Your task to perform on an android device: Check the weather Image 0: 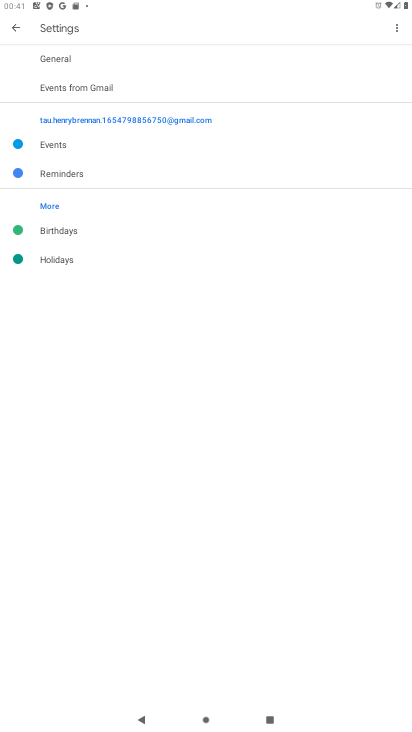
Step 0: press home button
Your task to perform on an android device: Check the weather Image 1: 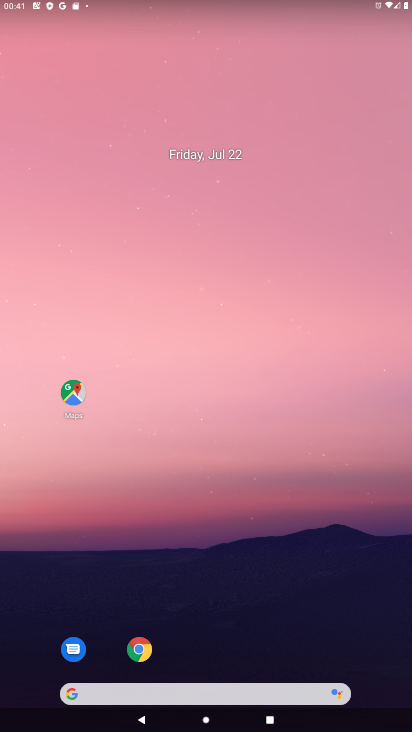
Step 1: drag from (273, 609) to (195, 124)
Your task to perform on an android device: Check the weather Image 2: 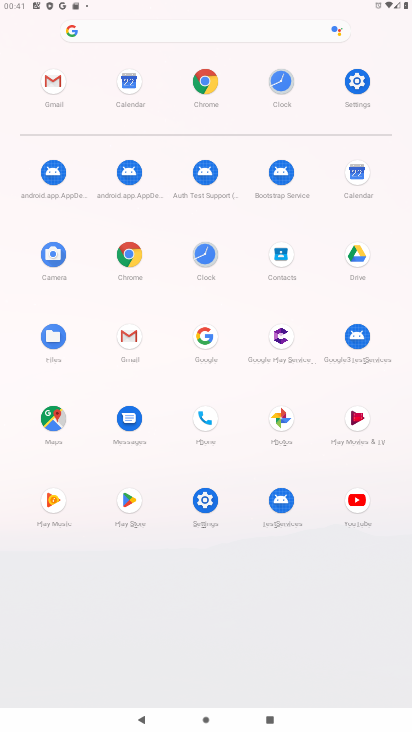
Step 2: click (137, 249)
Your task to perform on an android device: Check the weather Image 3: 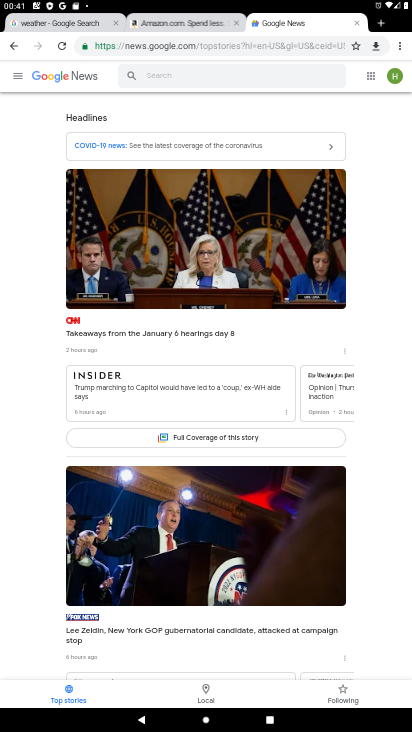
Step 3: click (178, 46)
Your task to perform on an android device: Check the weather Image 4: 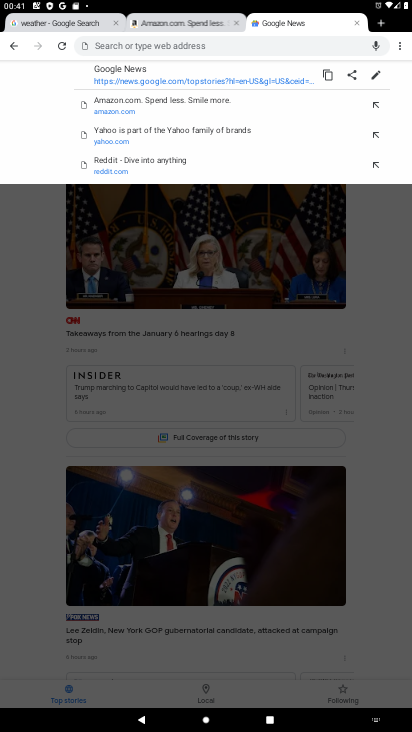
Step 4: type "weather"
Your task to perform on an android device: Check the weather Image 5: 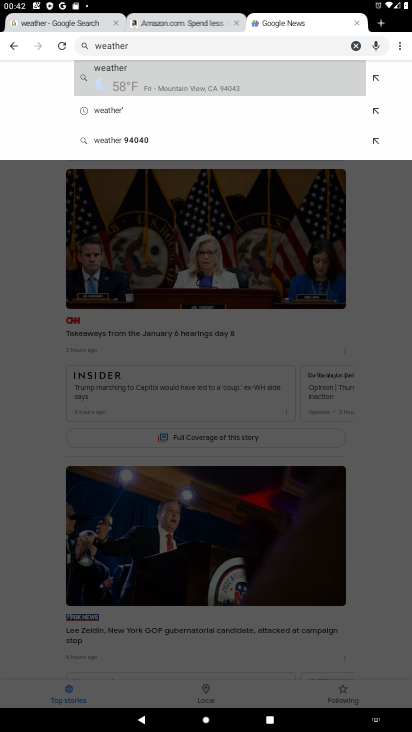
Step 5: click (132, 84)
Your task to perform on an android device: Check the weather Image 6: 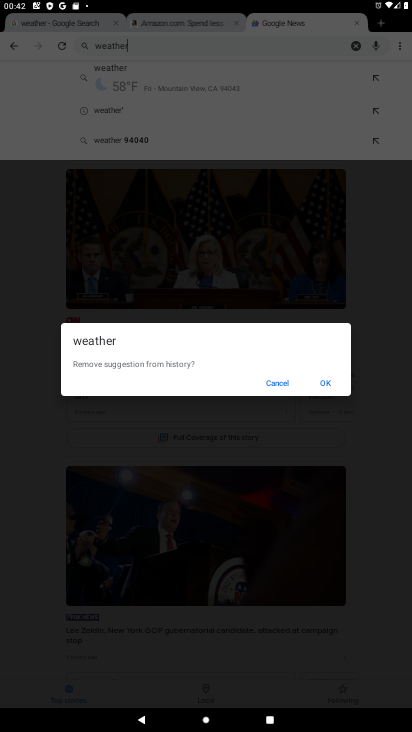
Step 6: click (284, 384)
Your task to perform on an android device: Check the weather Image 7: 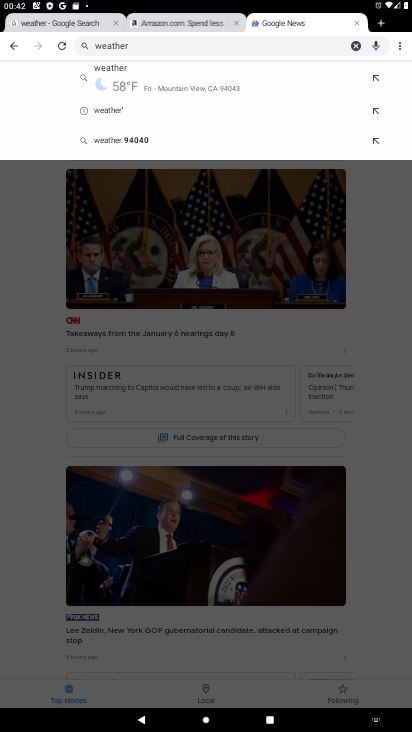
Step 7: click (121, 87)
Your task to perform on an android device: Check the weather Image 8: 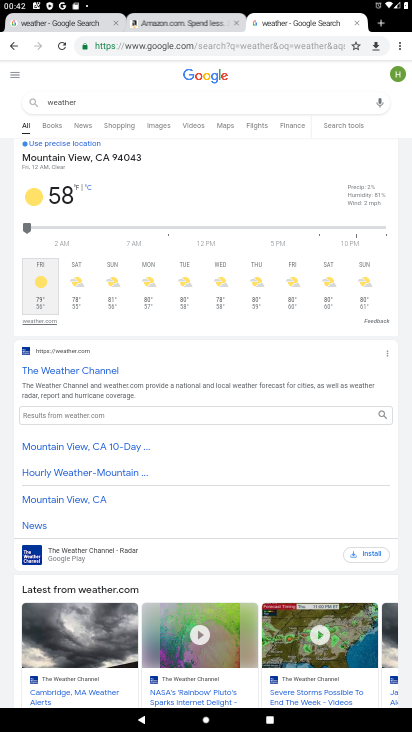
Step 8: task complete